Your task to perform on an android device: Open internet settings Image 0: 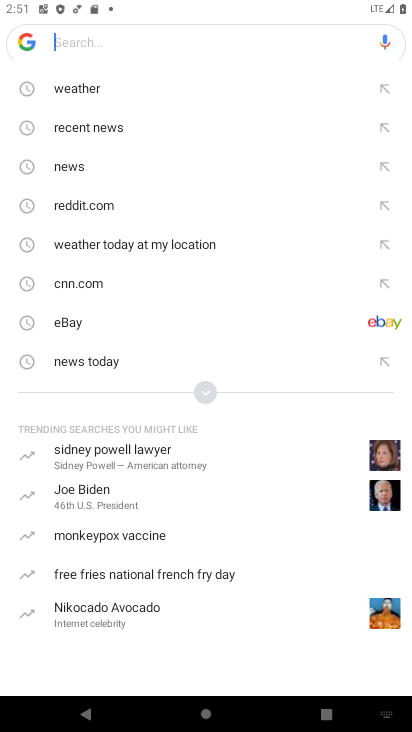
Step 0: press home button
Your task to perform on an android device: Open internet settings Image 1: 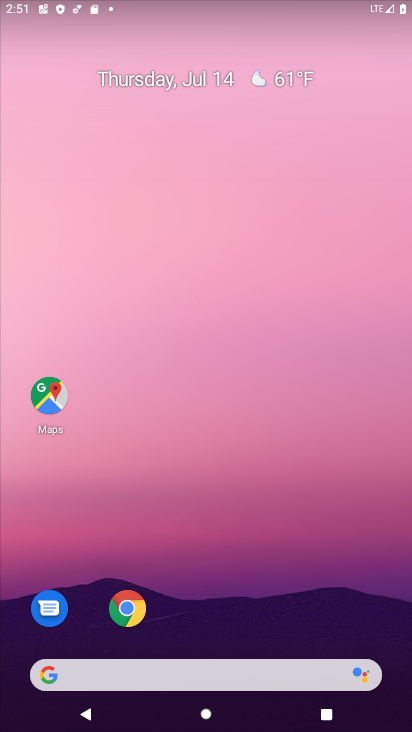
Step 1: drag from (210, 652) to (183, 233)
Your task to perform on an android device: Open internet settings Image 2: 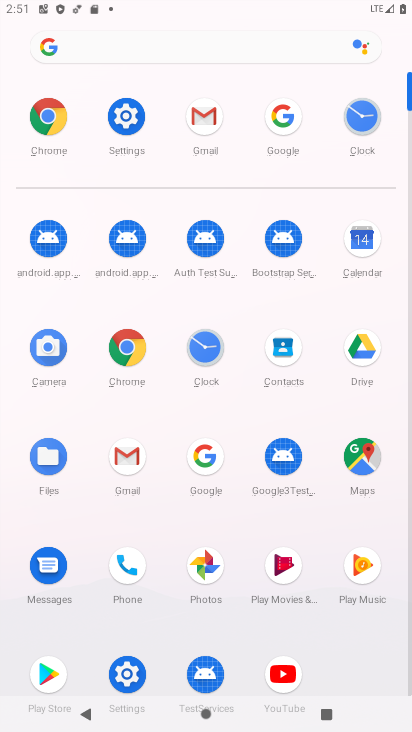
Step 2: click (128, 123)
Your task to perform on an android device: Open internet settings Image 3: 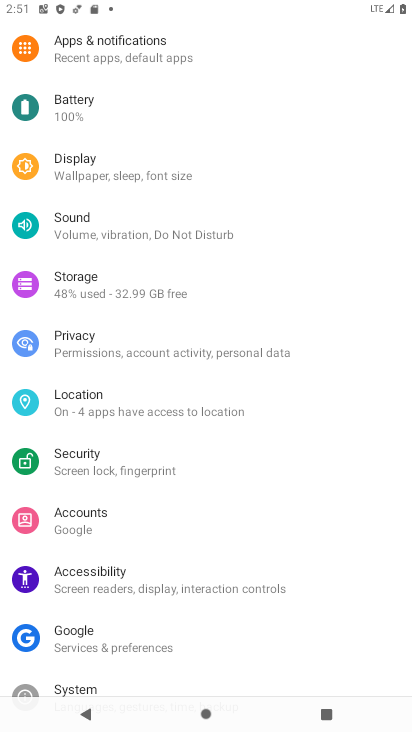
Step 3: drag from (142, 58) to (142, 595)
Your task to perform on an android device: Open internet settings Image 4: 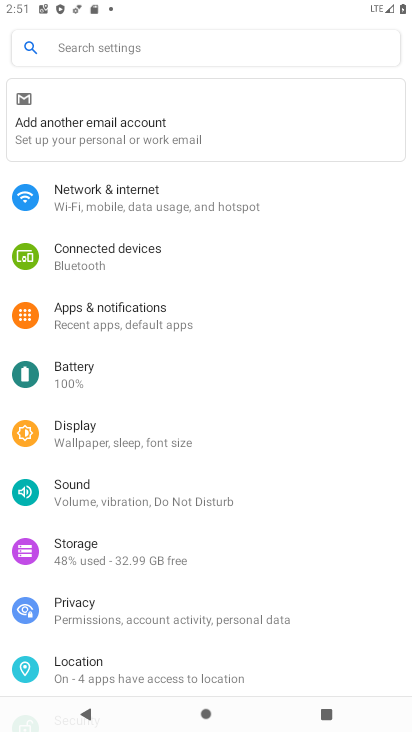
Step 4: click (104, 205)
Your task to perform on an android device: Open internet settings Image 5: 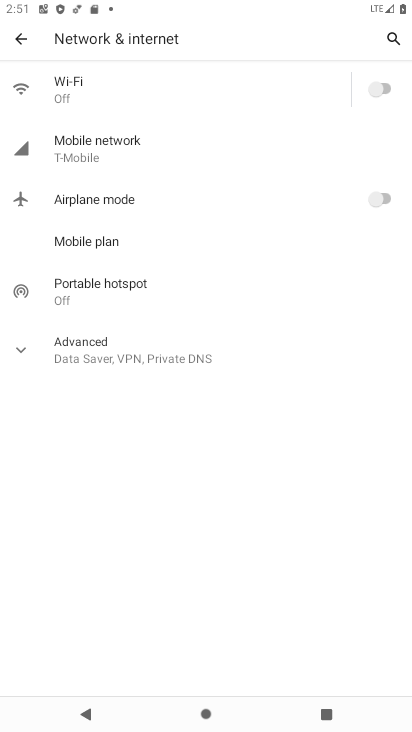
Step 5: click (67, 349)
Your task to perform on an android device: Open internet settings Image 6: 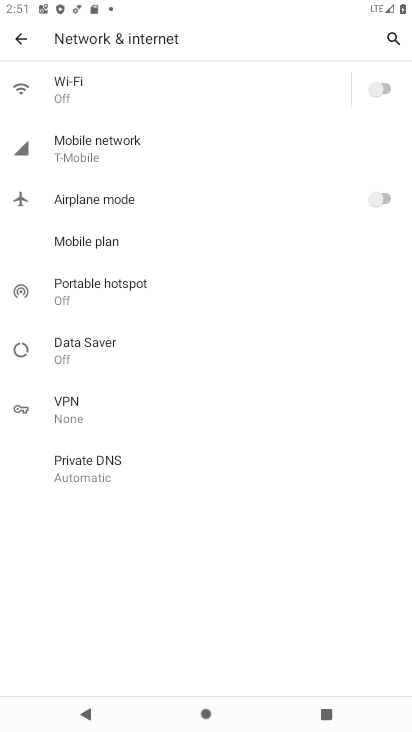
Step 6: task complete